Your task to perform on an android device: turn on the 24-hour format for clock Image 0: 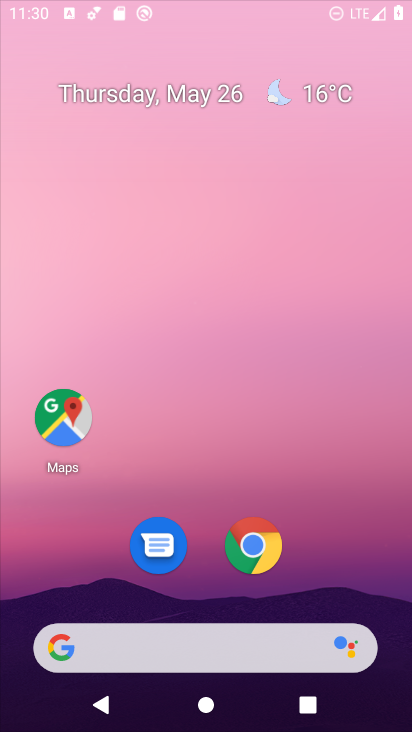
Step 0: press home button
Your task to perform on an android device: turn on the 24-hour format for clock Image 1: 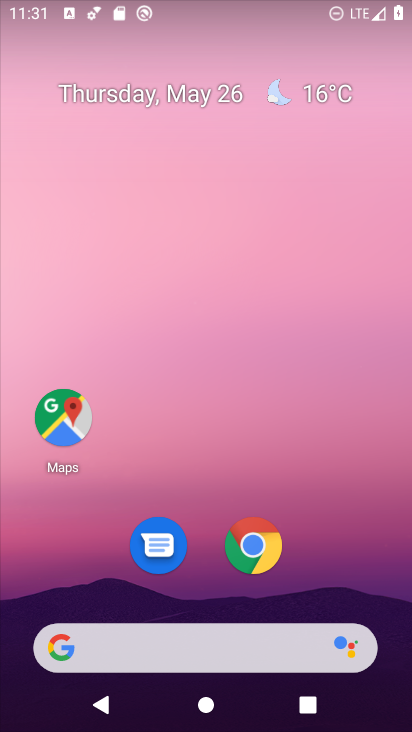
Step 1: drag from (156, 619) to (221, 4)
Your task to perform on an android device: turn on the 24-hour format for clock Image 2: 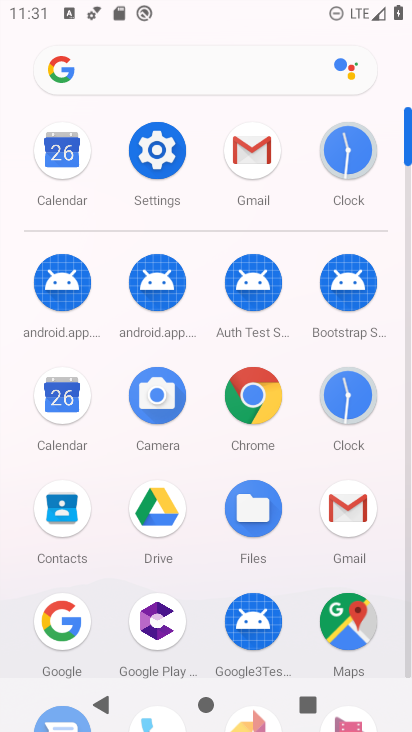
Step 2: click (137, 140)
Your task to perform on an android device: turn on the 24-hour format for clock Image 3: 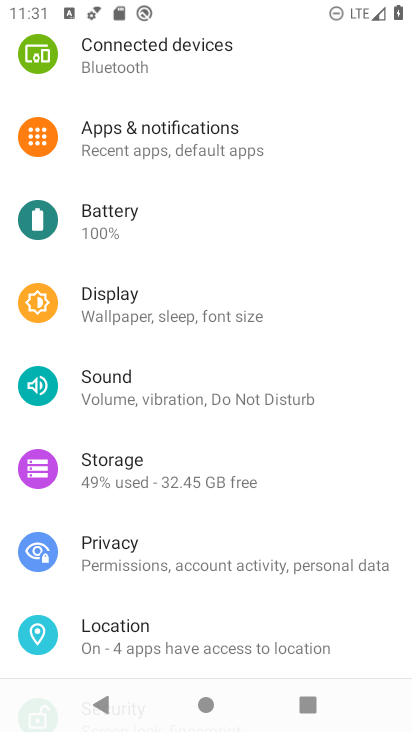
Step 3: drag from (327, 482) to (286, 136)
Your task to perform on an android device: turn on the 24-hour format for clock Image 4: 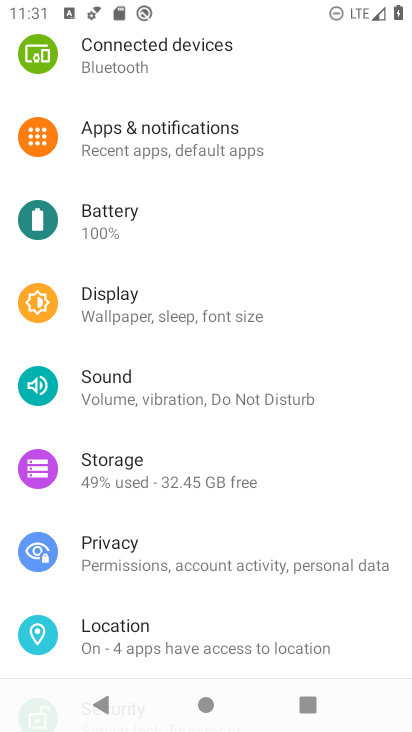
Step 4: drag from (314, 335) to (293, 8)
Your task to perform on an android device: turn on the 24-hour format for clock Image 5: 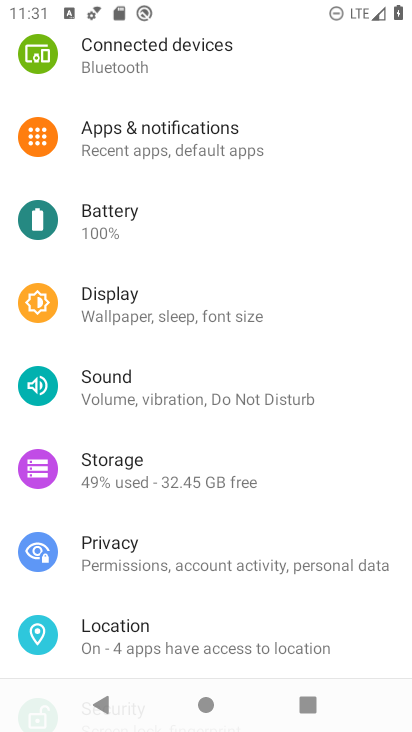
Step 5: drag from (344, 509) to (352, 6)
Your task to perform on an android device: turn on the 24-hour format for clock Image 6: 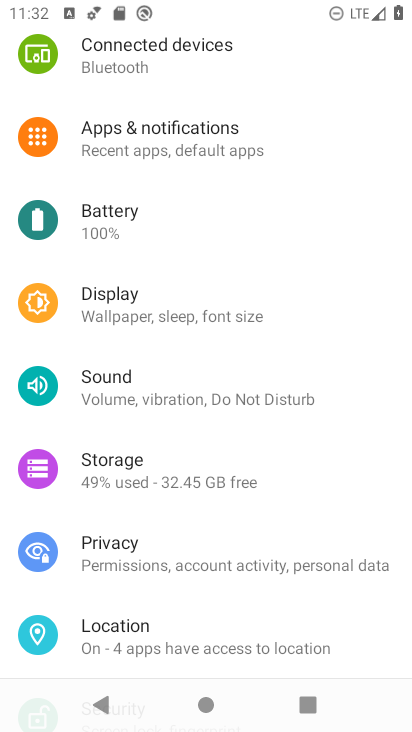
Step 6: drag from (371, 664) to (359, 2)
Your task to perform on an android device: turn on the 24-hour format for clock Image 7: 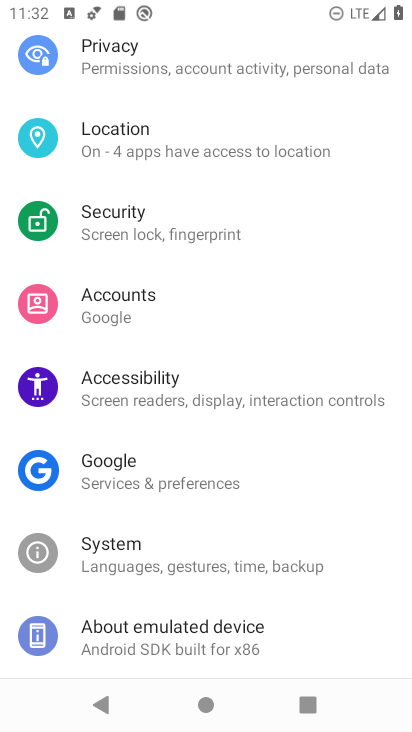
Step 7: drag from (350, 623) to (291, 62)
Your task to perform on an android device: turn on the 24-hour format for clock Image 8: 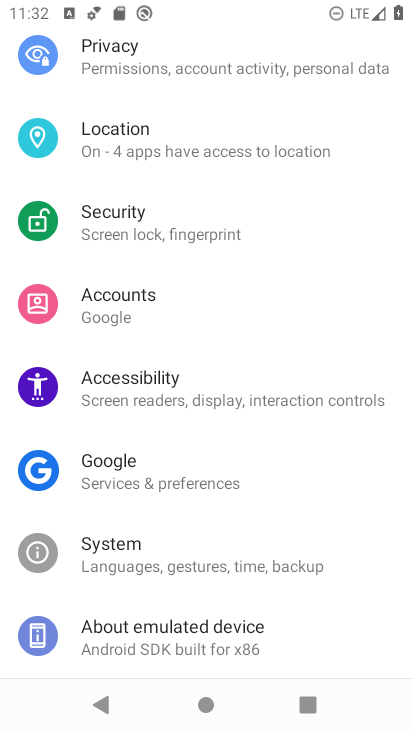
Step 8: click (127, 547)
Your task to perform on an android device: turn on the 24-hour format for clock Image 9: 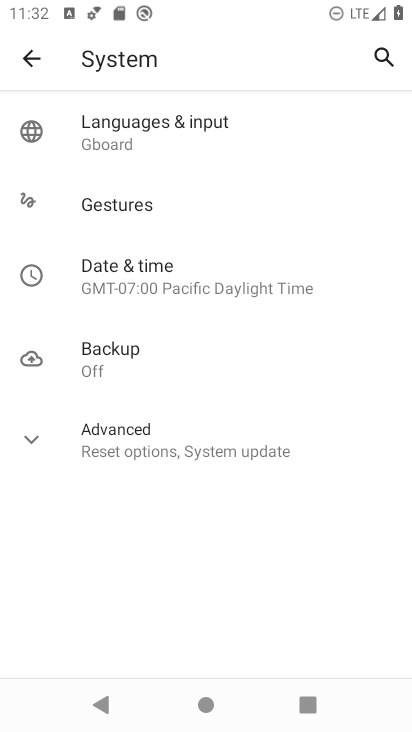
Step 9: click (156, 283)
Your task to perform on an android device: turn on the 24-hour format for clock Image 10: 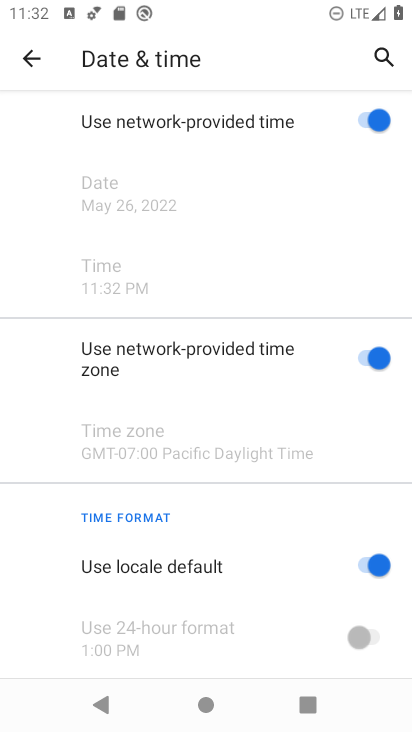
Step 10: click (356, 636)
Your task to perform on an android device: turn on the 24-hour format for clock Image 11: 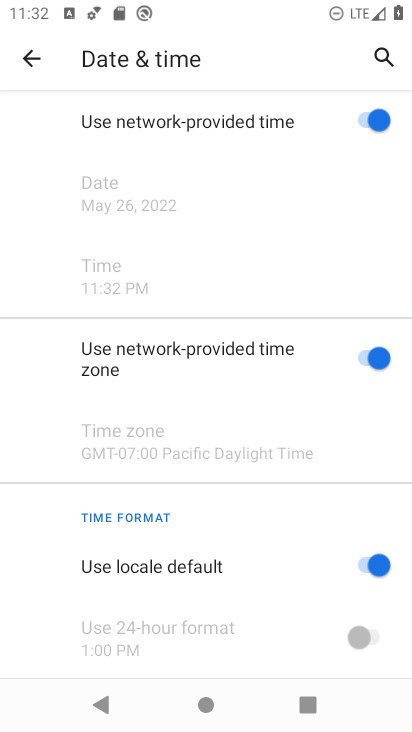
Step 11: click (381, 562)
Your task to perform on an android device: turn on the 24-hour format for clock Image 12: 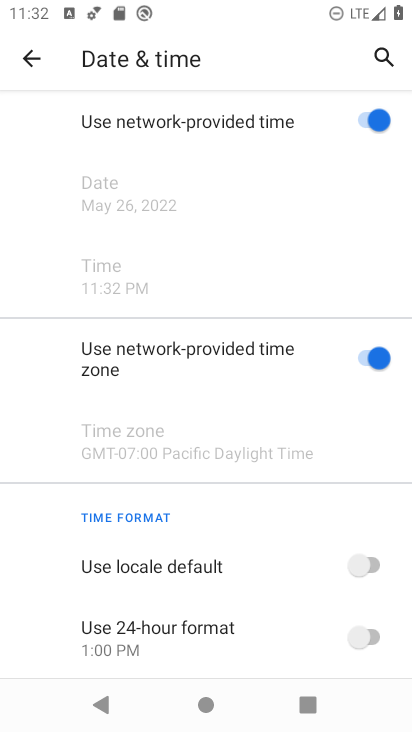
Step 12: click (362, 635)
Your task to perform on an android device: turn on the 24-hour format for clock Image 13: 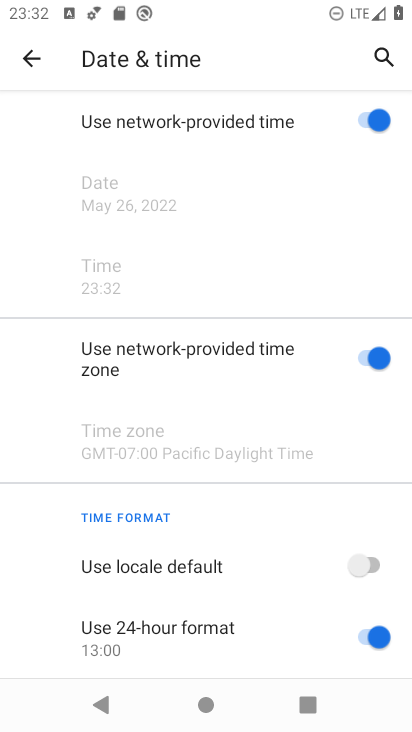
Step 13: task complete